Your task to perform on an android device: turn on wifi Image 0: 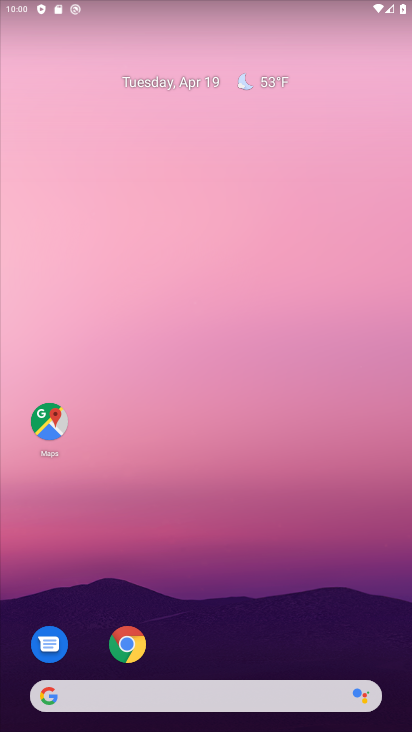
Step 0: drag from (193, 560) to (190, 40)
Your task to perform on an android device: turn on wifi Image 1: 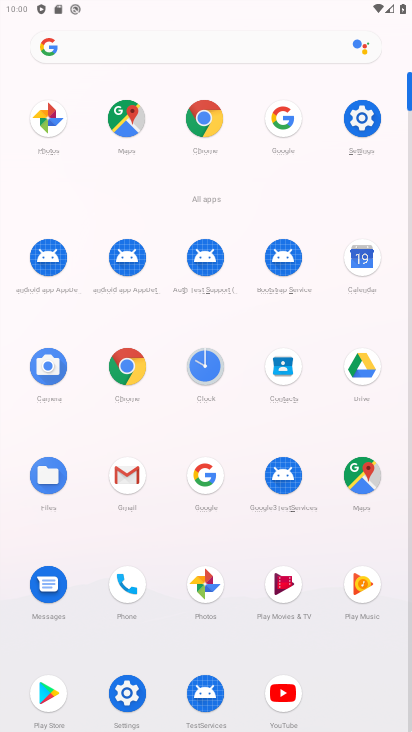
Step 1: click (358, 117)
Your task to perform on an android device: turn on wifi Image 2: 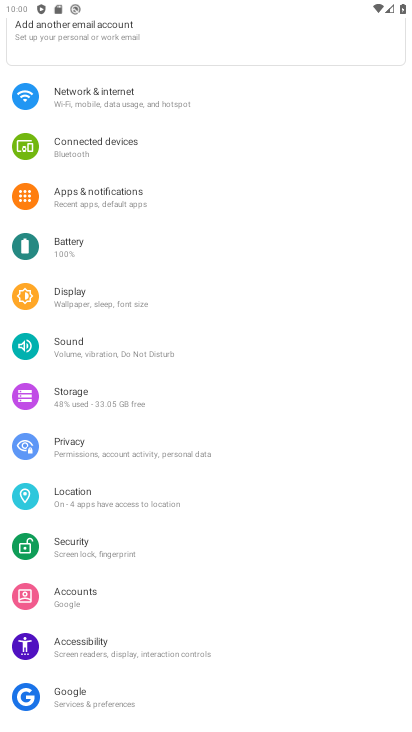
Step 2: click (177, 90)
Your task to perform on an android device: turn on wifi Image 3: 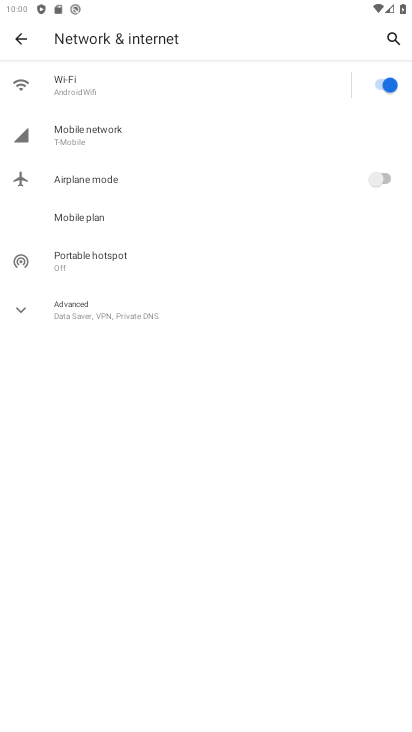
Step 3: task complete